Your task to perform on an android device: Open Google Maps Image 0: 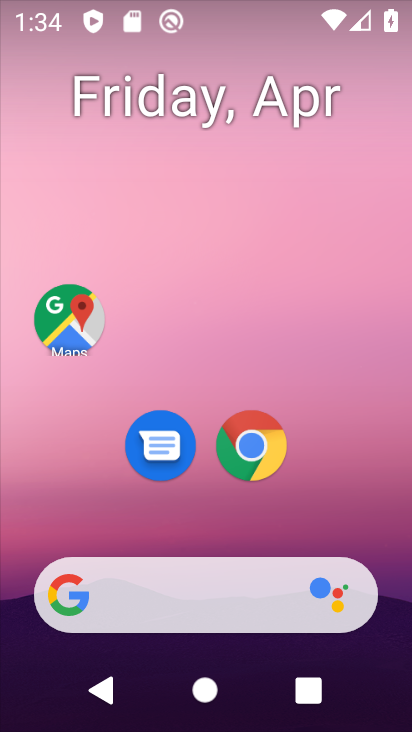
Step 0: click (59, 317)
Your task to perform on an android device: Open Google Maps Image 1: 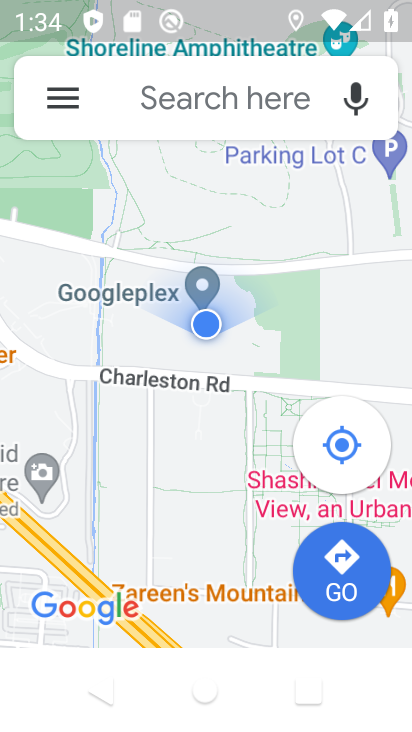
Step 1: task complete